Your task to perform on an android device: change alarm snooze length Image 0: 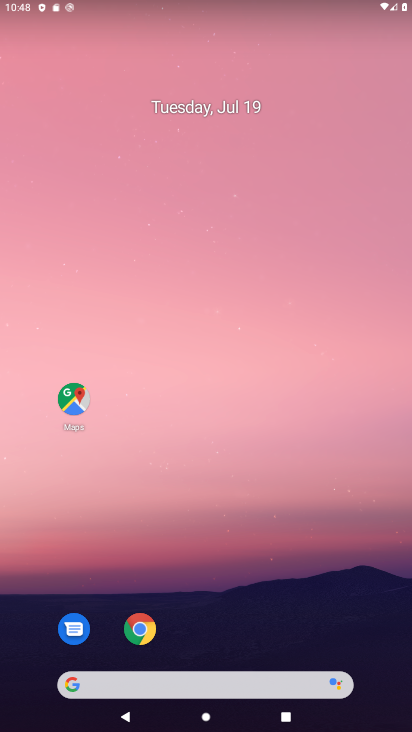
Step 0: drag from (385, 692) to (296, 63)
Your task to perform on an android device: change alarm snooze length Image 1: 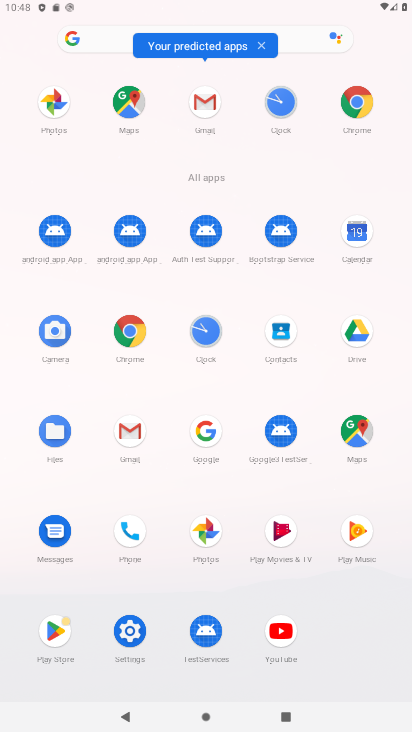
Step 1: click (279, 104)
Your task to perform on an android device: change alarm snooze length Image 2: 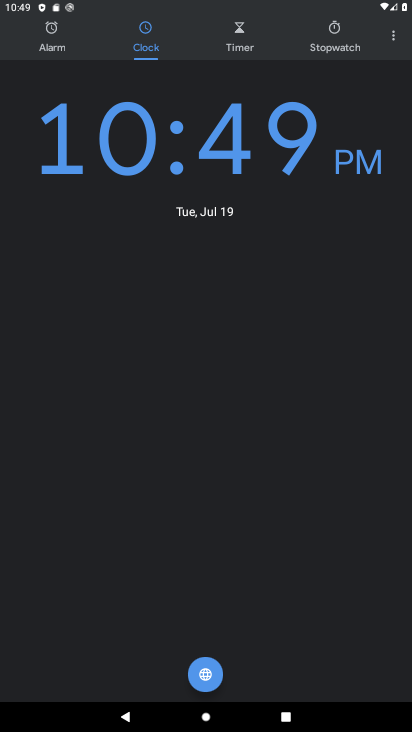
Step 2: click (392, 40)
Your task to perform on an android device: change alarm snooze length Image 3: 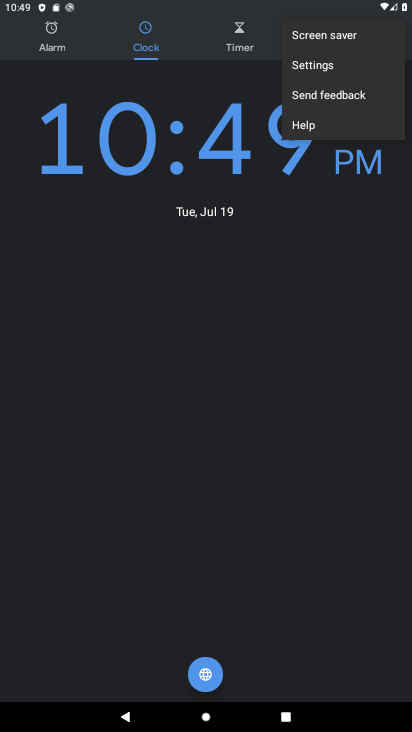
Step 3: click (333, 62)
Your task to perform on an android device: change alarm snooze length Image 4: 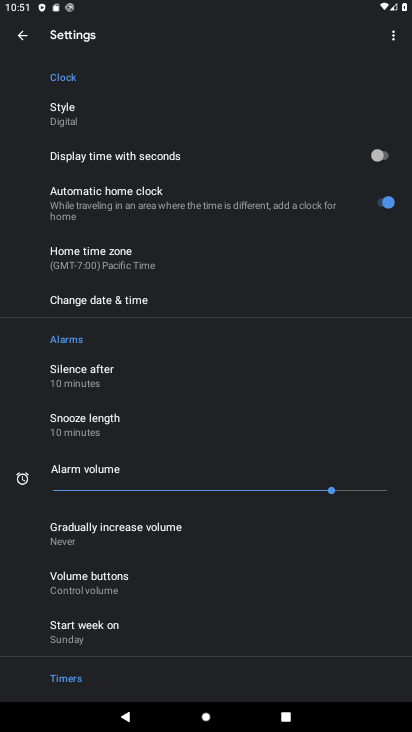
Step 4: click (86, 419)
Your task to perform on an android device: change alarm snooze length Image 5: 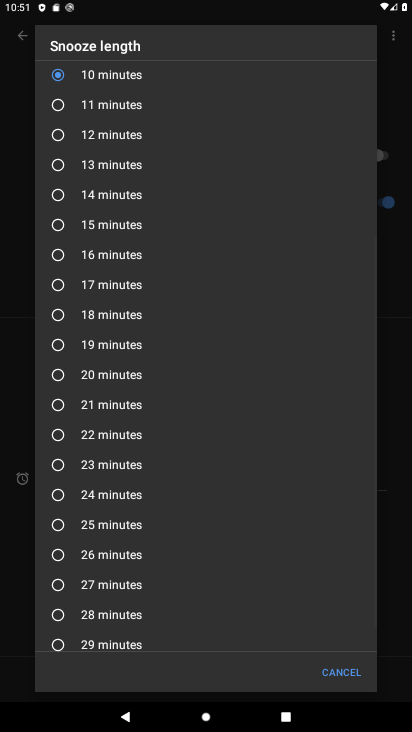
Step 5: click (56, 403)
Your task to perform on an android device: change alarm snooze length Image 6: 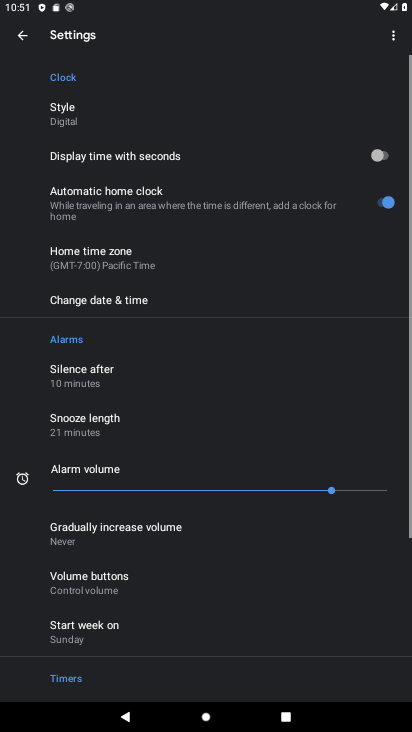
Step 6: task complete